Your task to perform on an android device: Go to settings Image 0: 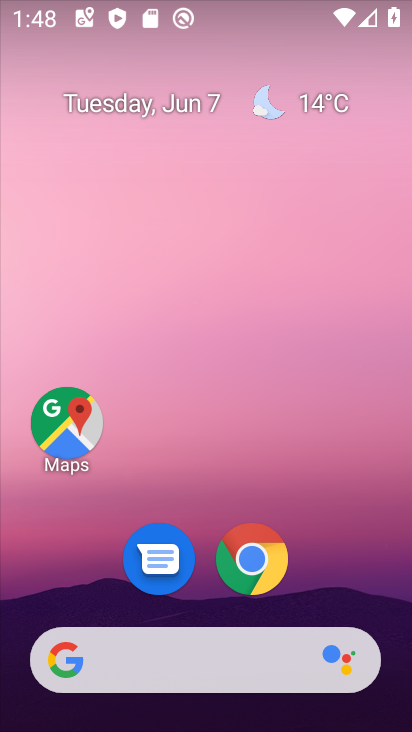
Step 0: drag from (325, 537) to (228, 17)
Your task to perform on an android device: Go to settings Image 1: 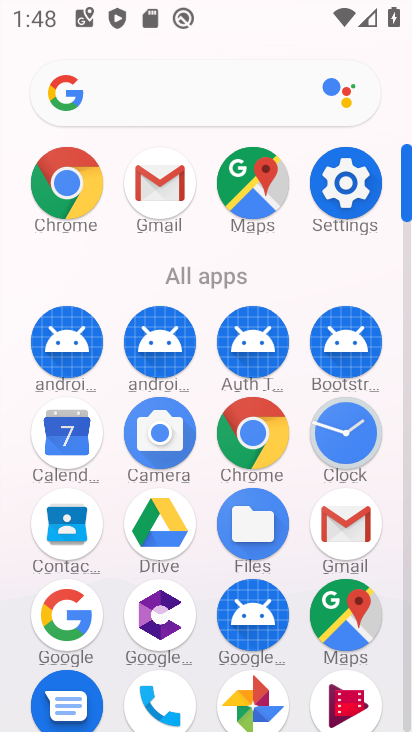
Step 1: click (346, 181)
Your task to perform on an android device: Go to settings Image 2: 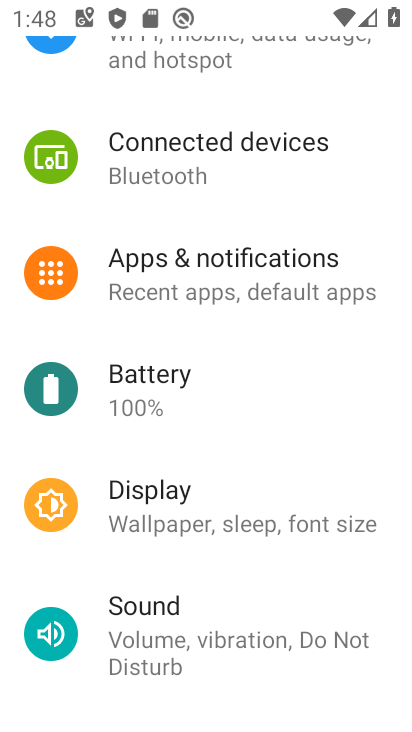
Step 2: task complete